Your task to perform on an android device: empty trash in the gmail app Image 0: 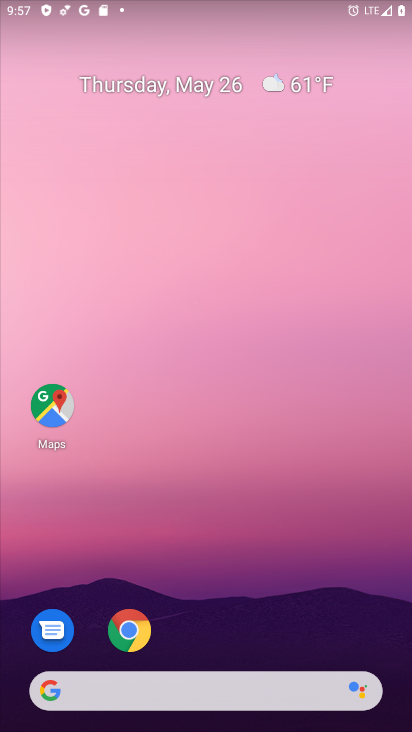
Step 0: drag from (192, 646) to (185, 80)
Your task to perform on an android device: empty trash in the gmail app Image 1: 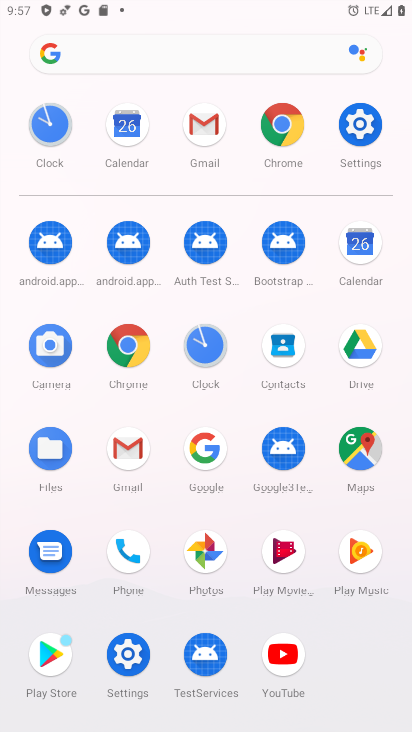
Step 1: click (126, 455)
Your task to perform on an android device: empty trash in the gmail app Image 2: 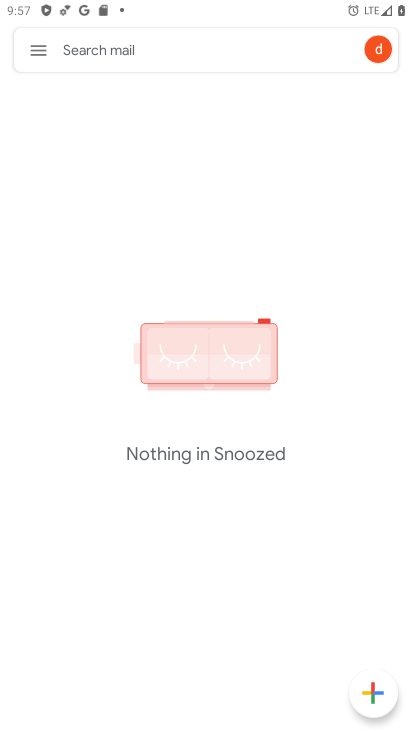
Step 2: click (29, 36)
Your task to perform on an android device: empty trash in the gmail app Image 3: 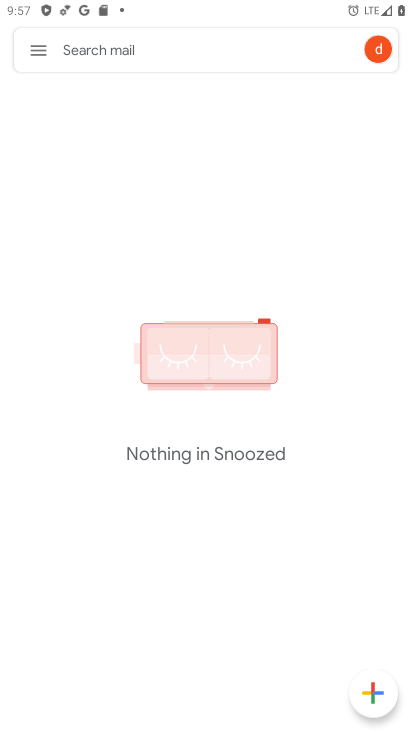
Step 3: click (29, 36)
Your task to perform on an android device: empty trash in the gmail app Image 4: 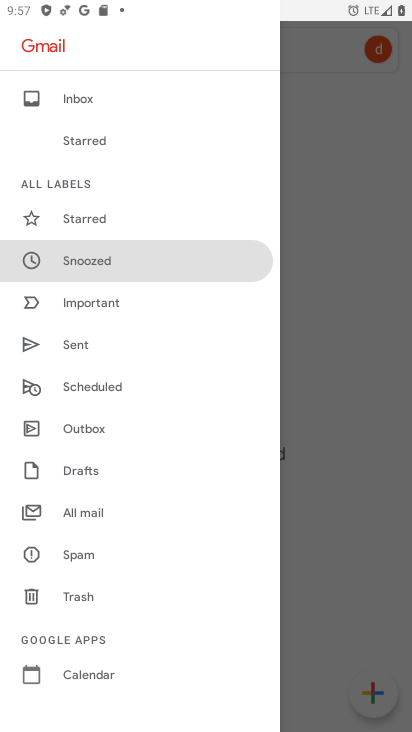
Step 4: click (51, 582)
Your task to perform on an android device: empty trash in the gmail app Image 5: 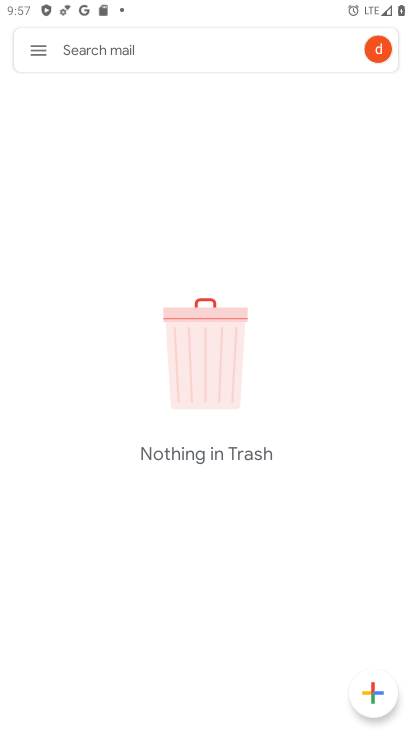
Step 5: task complete